Your task to perform on an android device: create a new album in the google photos Image 0: 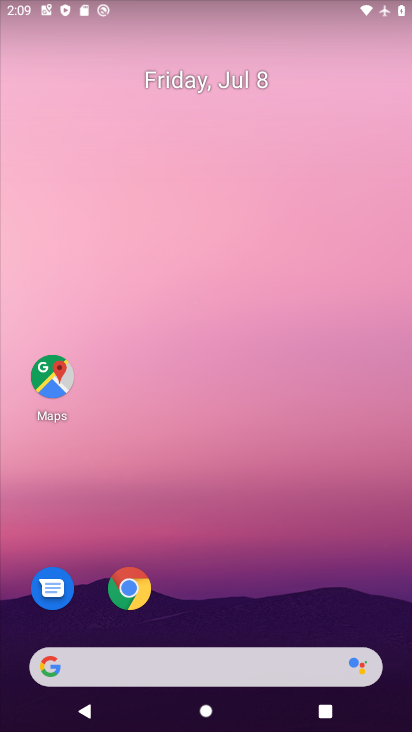
Step 0: press home button
Your task to perform on an android device: create a new album in the google photos Image 1: 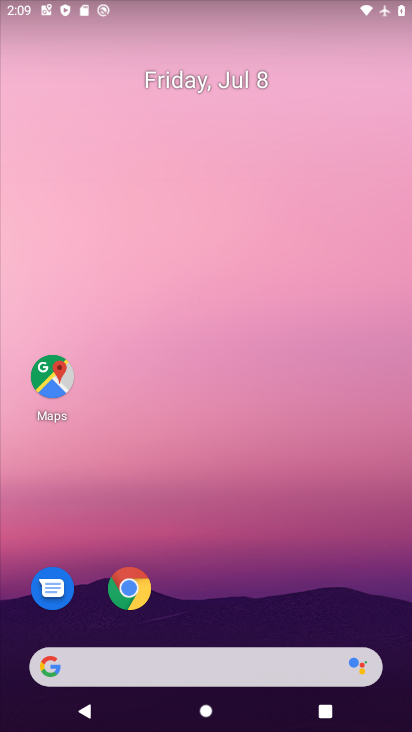
Step 1: drag from (215, 584) to (132, 0)
Your task to perform on an android device: create a new album in the google photos Image 2: 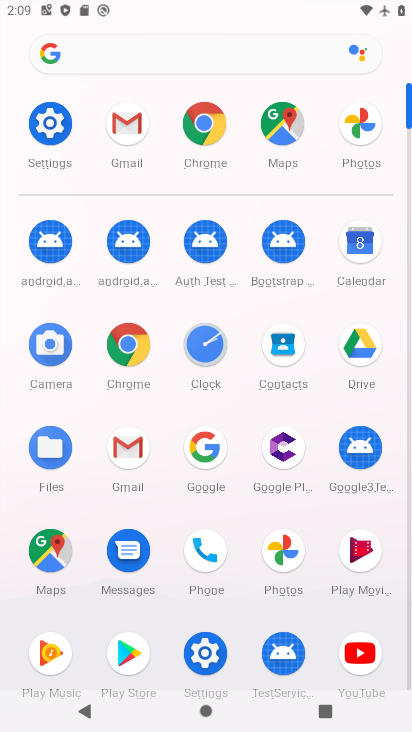
Step 2: click (364, 125)
Your task to perform on an android device: create a new album in the google photos Image 3: 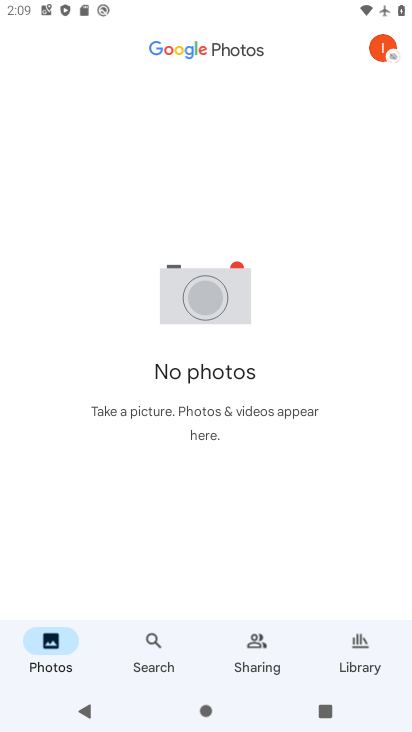
Step 3: task complete